Your task to perform on an android device: set the timer Image 0: 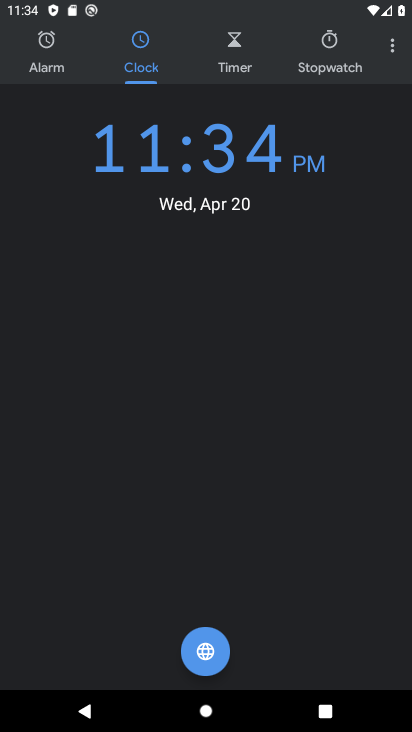
Step 0: press home button
Your task to perform on an android device: set the timer Image 1: 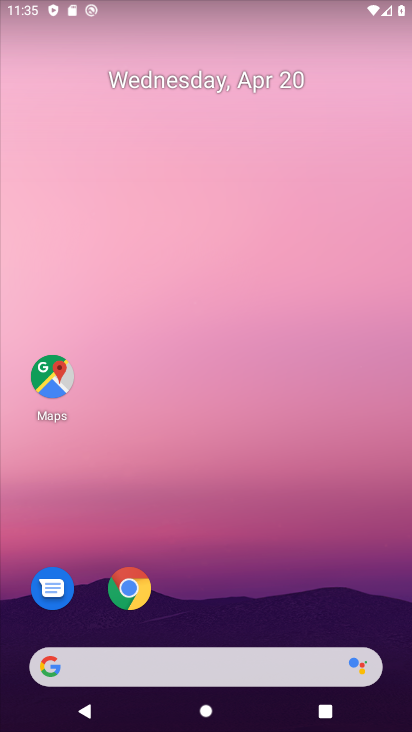
Step 1: drag from (218, 616) to (230, 1)
Your task to perform on an android device: set the timer Image 2: 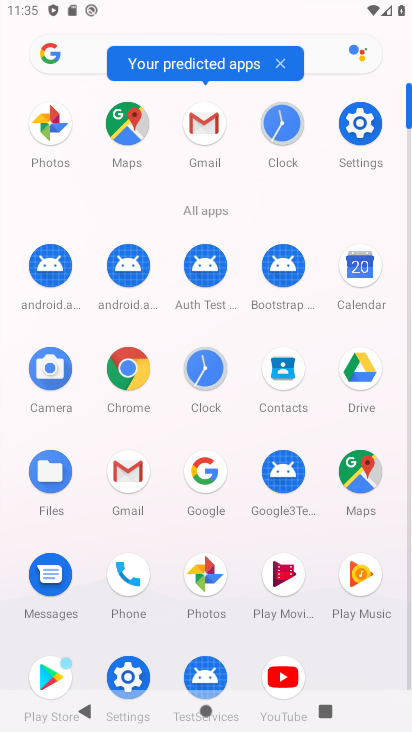
Step 2: click (202, 364)
Your task to perform on an android device: set the timer Image 3: 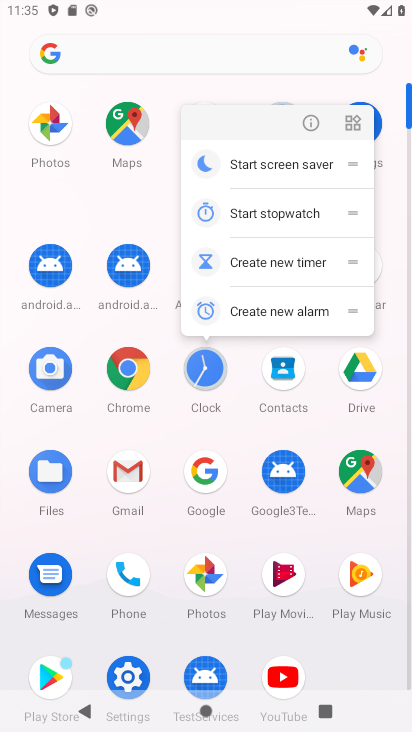
Step 3: click (201, 359)
Your task to perform on an android device: set the timer Image 4: 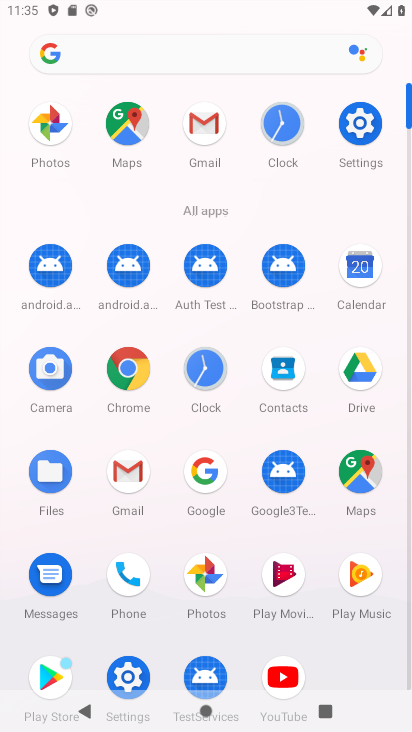
Step 4: click (202, 363)
Your task to perform on an android device: set the timer Image 5: 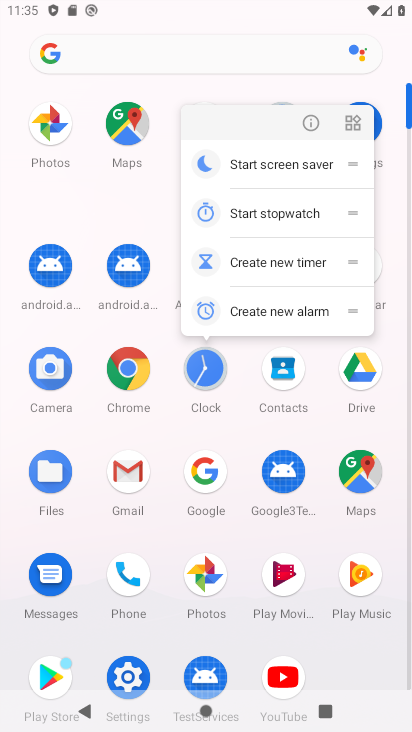
Step 5: click (202, 367)
Your task to perform on an android device: set the timer Image 6: 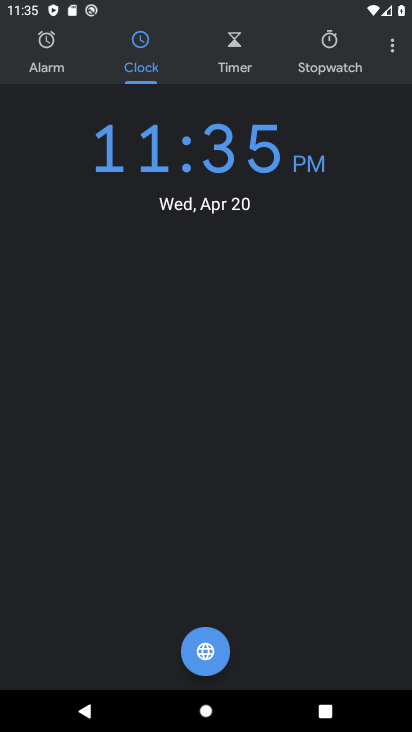
Step 6: click (232, 43)
Your task to perform on an android device: set the timer Image 7: 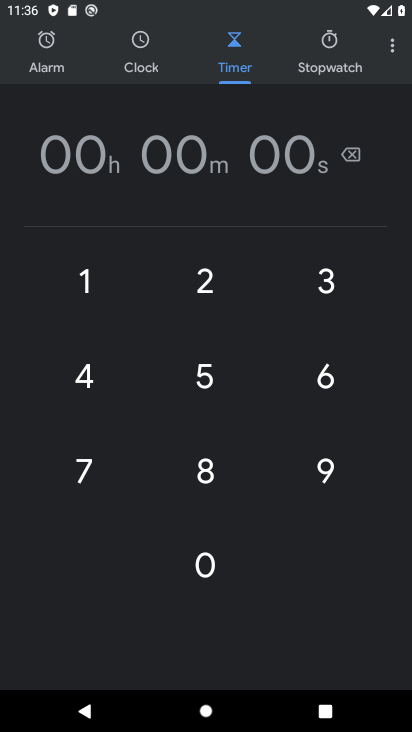
Step 7: click (328, 282)
Your task to perform on an android device: set the timer Image 8: 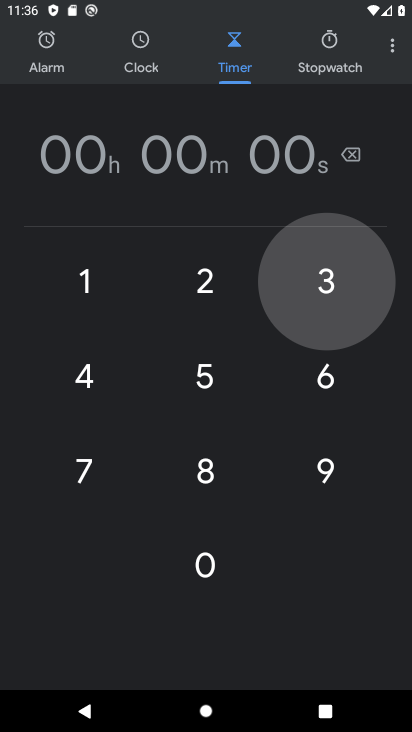
Step 8: click (328, 282)
Your task to perform on an android device: set the timer Image 9: 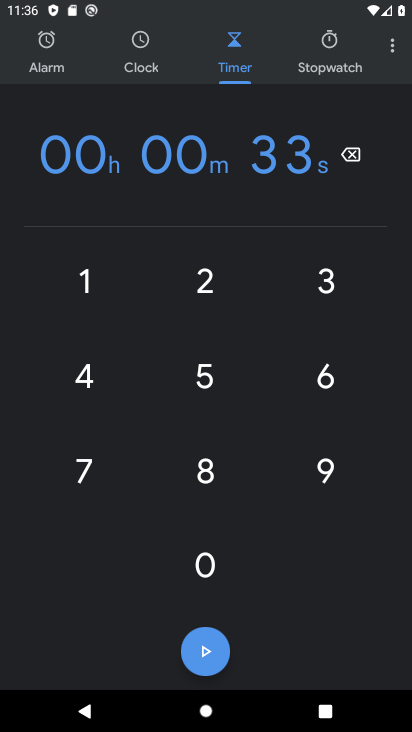
Step 9: click (205, 570)
Your task to perform on an android device: set the timer Image 10: 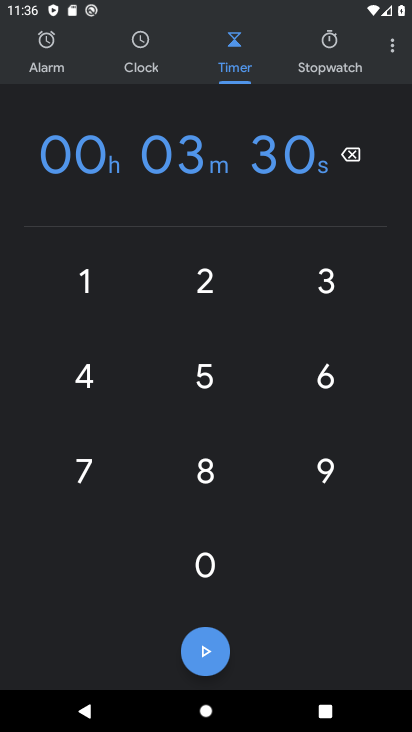
Step 10: click (202, 644)
Your task to perform on an android device: set the timer Image 11: 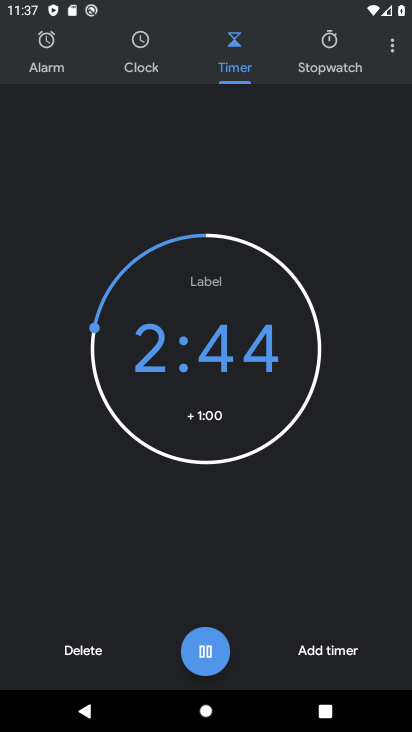
Step 11: task complete